Your task to perform on an android device: open sync settings in chrome Image 0: 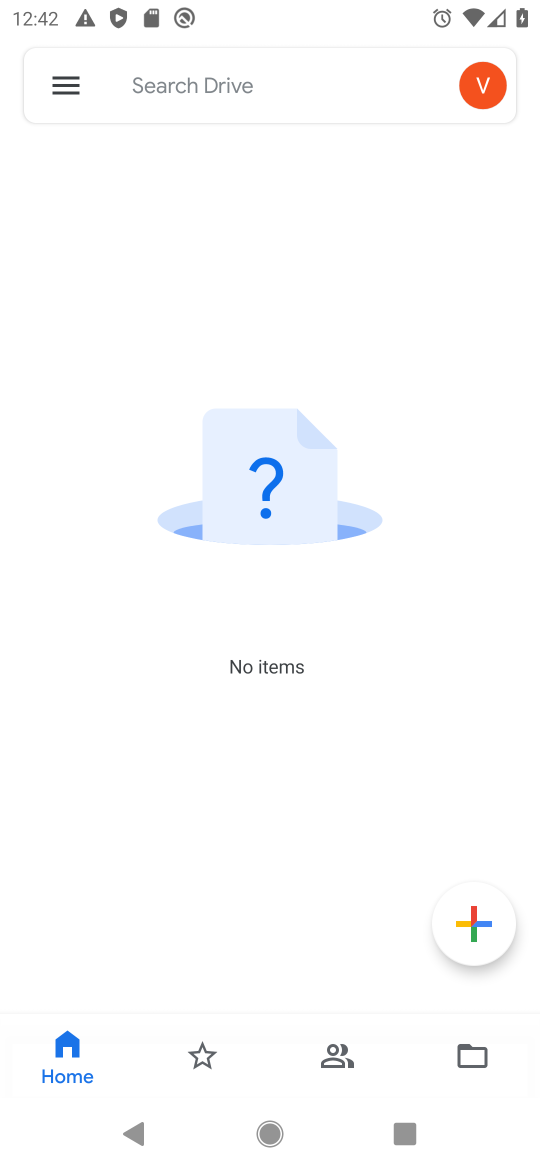
Step 0: press home button
Your task to perform on an android device: open sync settings in chrome Image 1: 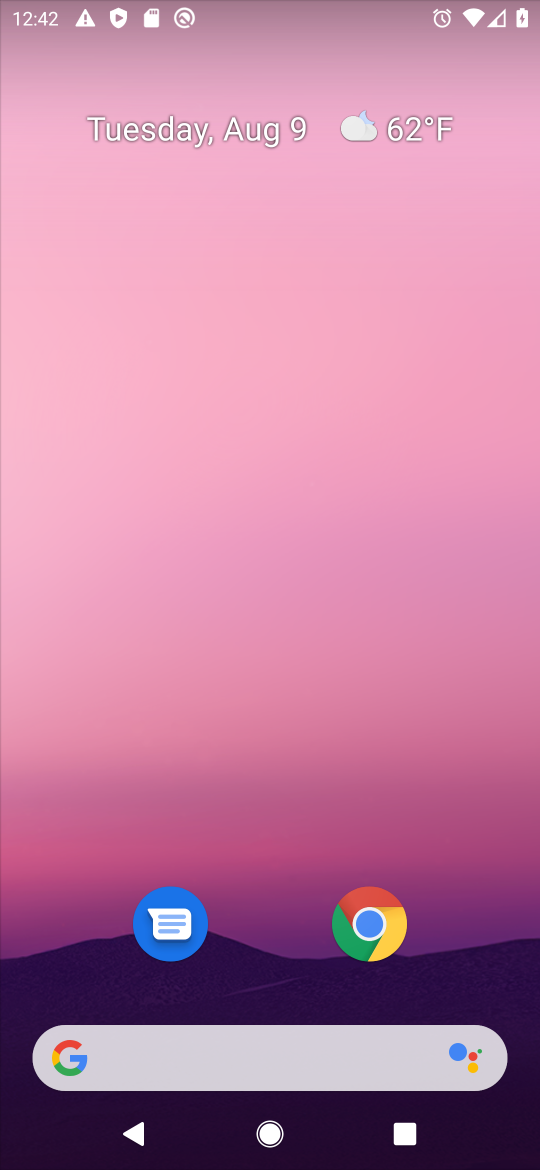
Step 1: click (382, 898)
Your task to perform on an android device: open sync settings in chrome Image 2: 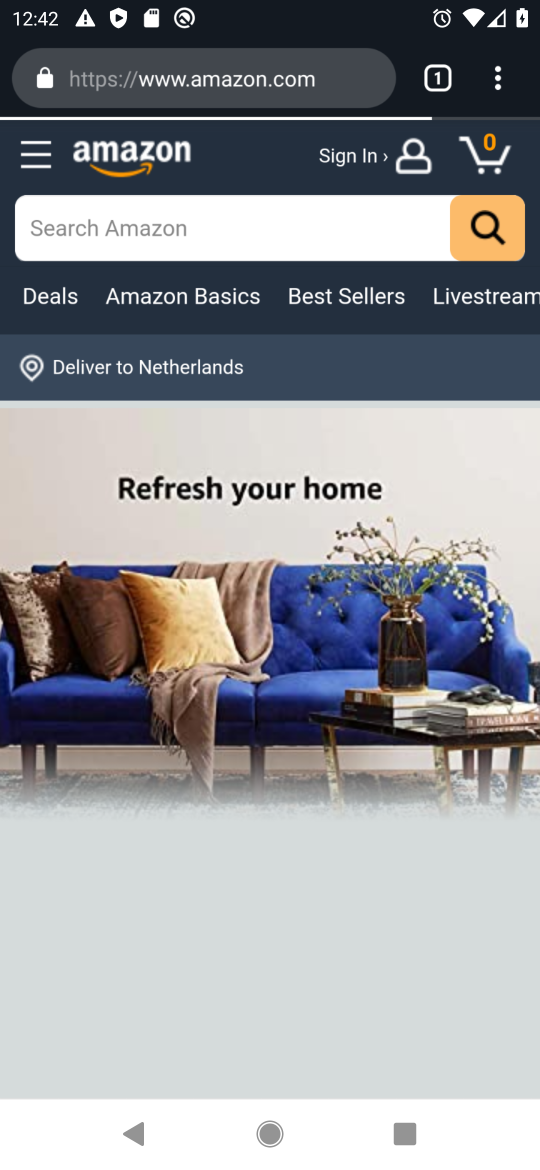
Step 2: click (492, 73)
Your task to perform on an android device: open sync settings in chrome Image 3: 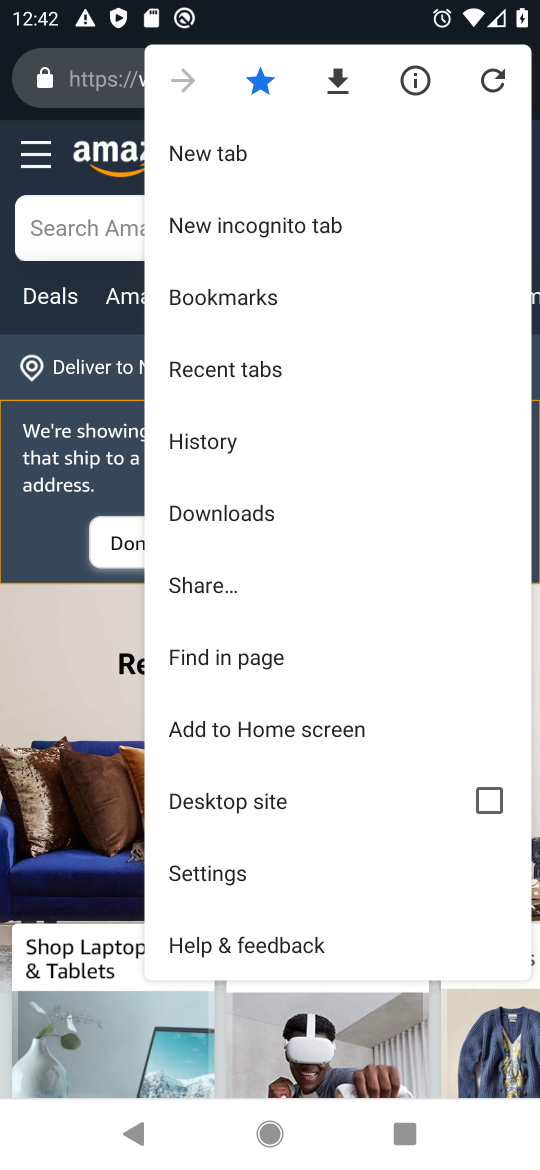
Step 3: click (288, 877)
Your task to perform on an android device: open sync settings in chrome Image 4: 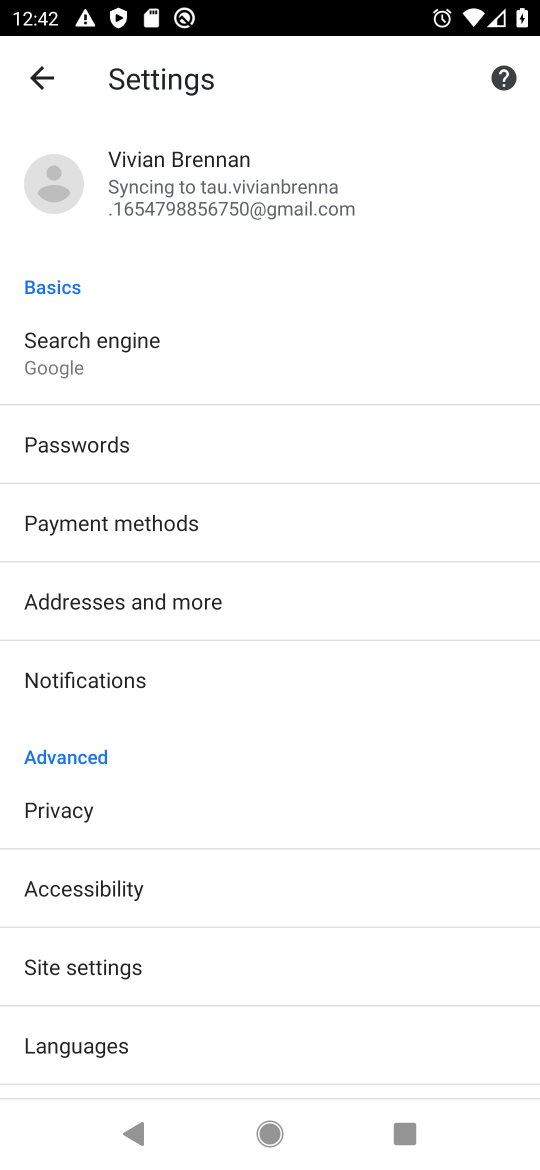
Step 4: task complete